Your task to perform on an android device: stop showing notifications on the lock screen Image 0: 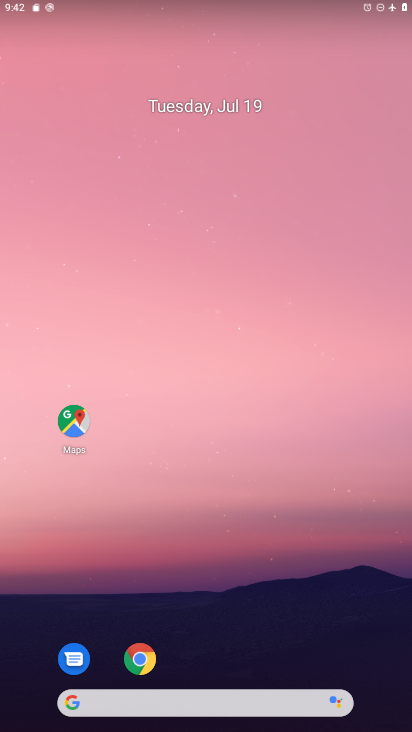
Step 0: drag from (271, 638) to (336, 174)
Your task to perform on an android device: stop showing notifications on the lock screen Image 1: 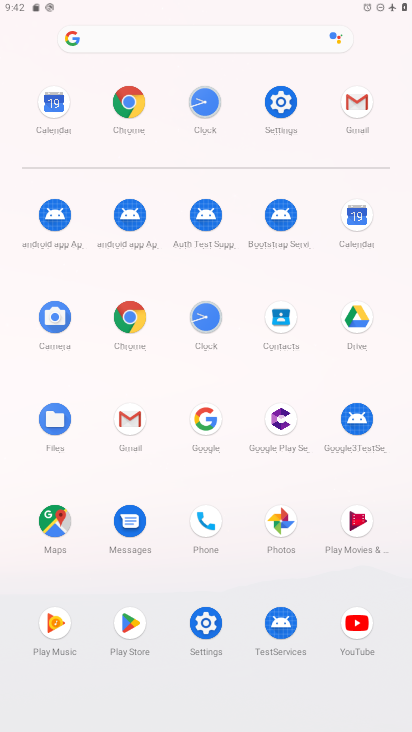
Step 1: click (282, 95)
Your task to perform on an android device: stop showing notifications on the lock screen Image 2: 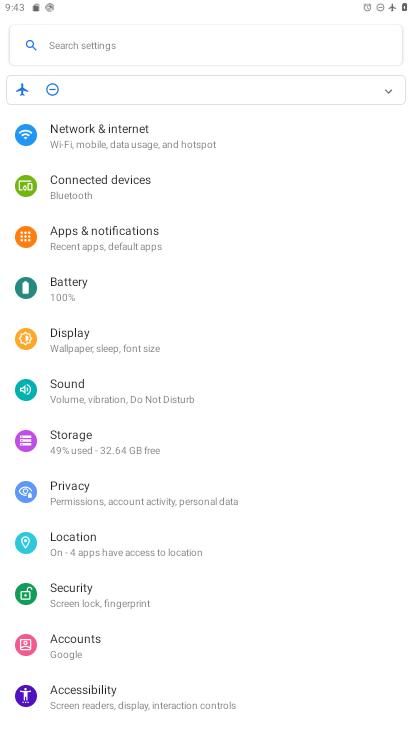
Step 2: click (105, 240)
Your task to perform on an android device: stop showing notifications on the lock screen Image 3: 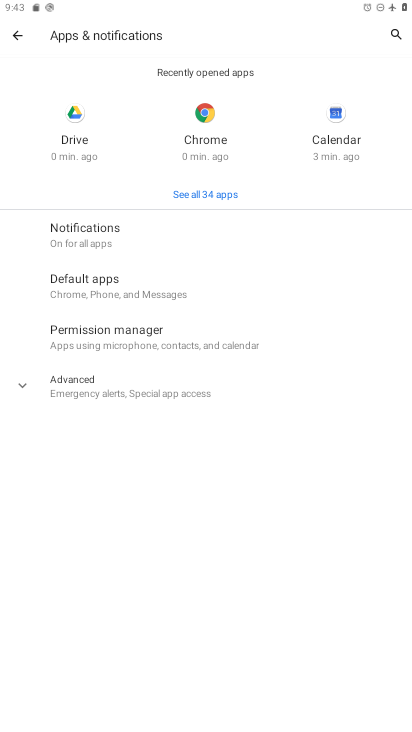
Step 3: click (112, 233)
Your task to perform on an android device: stop showing notifications on the lock screen Image 4: 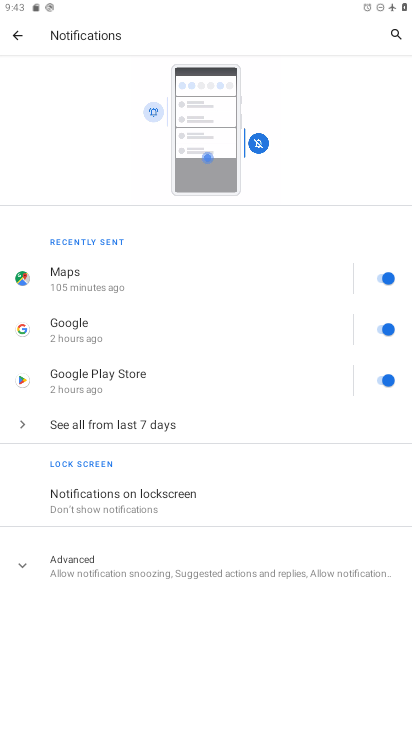
Step 4: click (167, 504)
Your task to perform on an android device: stop showing notifications on the lock screen Image 5: 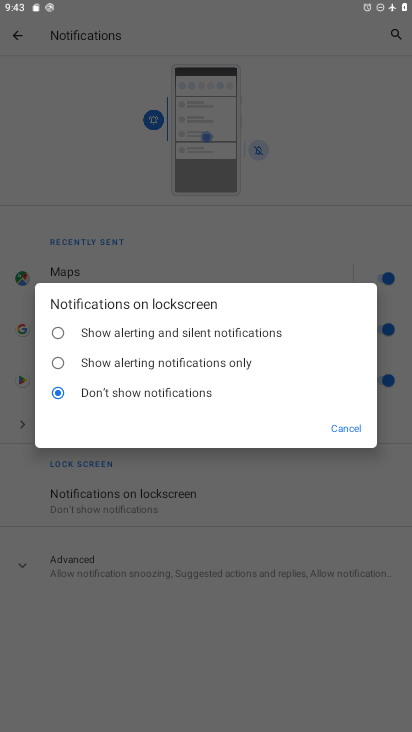
Step 5: task complete